Your task to perform on an android device: Check the news Image 0: 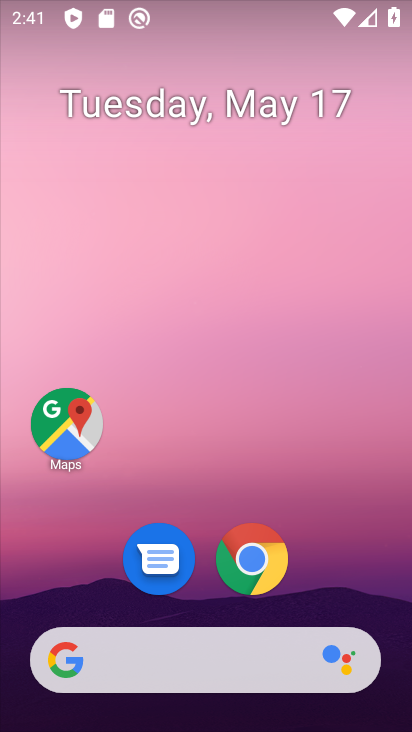
Step 0: click (245, 564)
Your task to perform on an android device: Check the news Image 1: 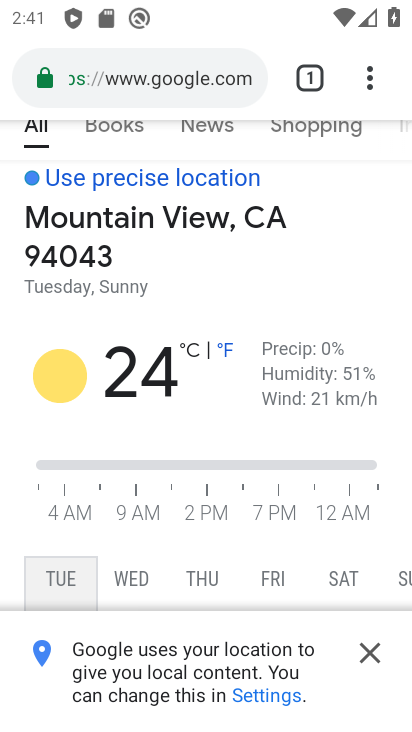
Step 1: click (195, 86)
Your task to perform on an android device: Check the news Image 2: 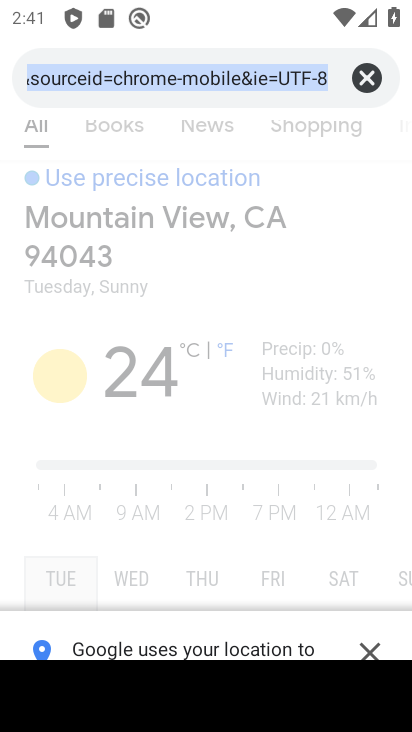
Step 2: type "news"
Your task to perform on an android device: Check the news Image 3: 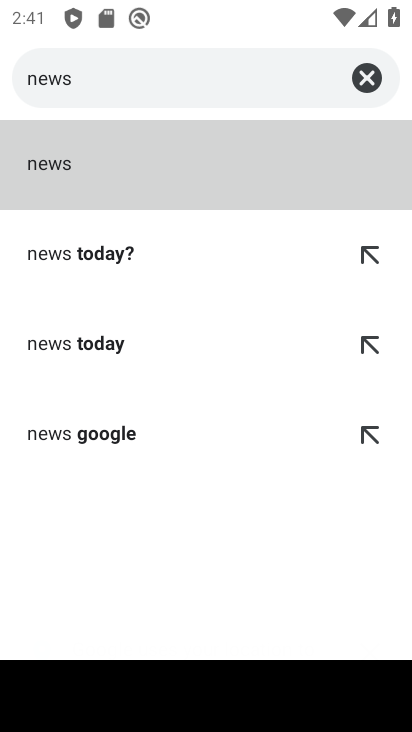
Step 3: click (57, 165)
Your task to perform on an android device: Check the news Image 4: 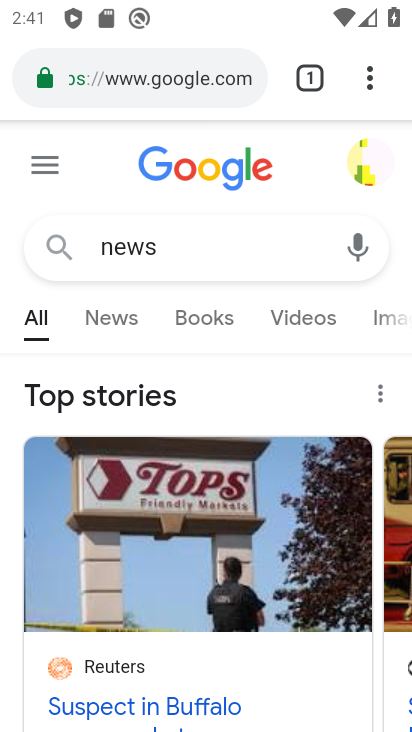
Step 4: task complete